Your task to perform on an android device: What's the weather? Image 0: 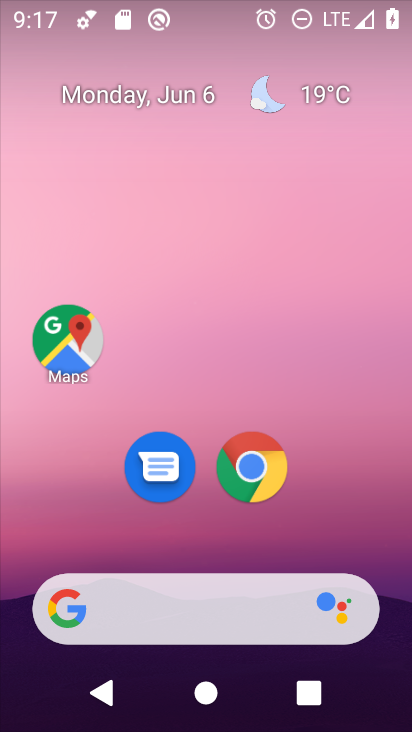
Step 0: click (297, 91)
Your task to perform on an android device: What's the weather? Image 1: 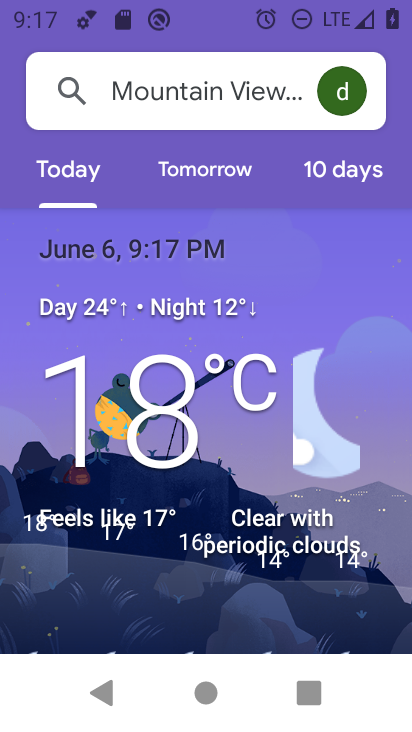
Step 1: task complete